Your task to perform on an android device: Toggle the flashlight Image 0: 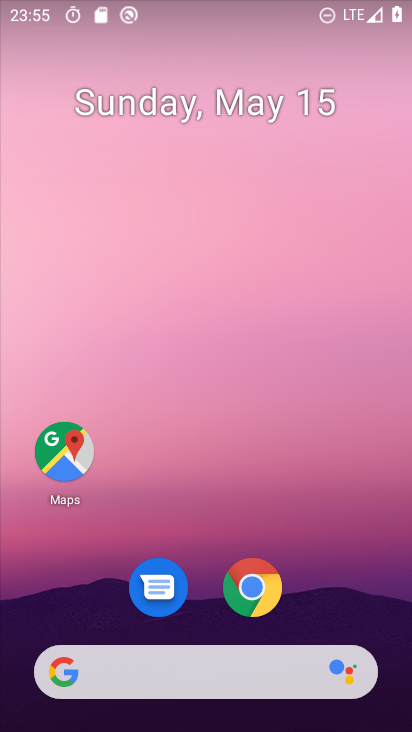
Step 0: drag from (209, 625) to (194, 183)
Your task to perform on an android device: Toggle the flashlight Image 1: 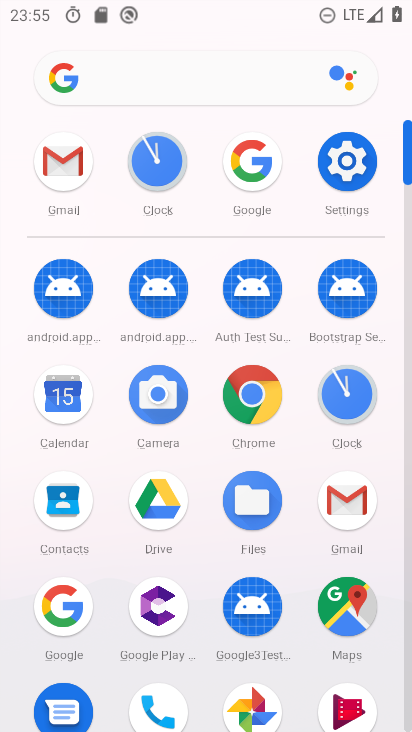
Step 1: click (342, 157)
Your task to perform on an android device: Toggle the flashlight Image 2: 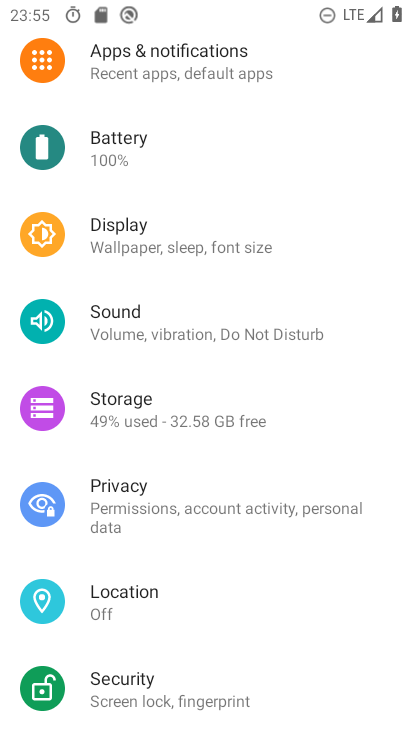
Step 2: click (201, 413)
Your task to perform on an android device: Toggle the flashlight Image 3: 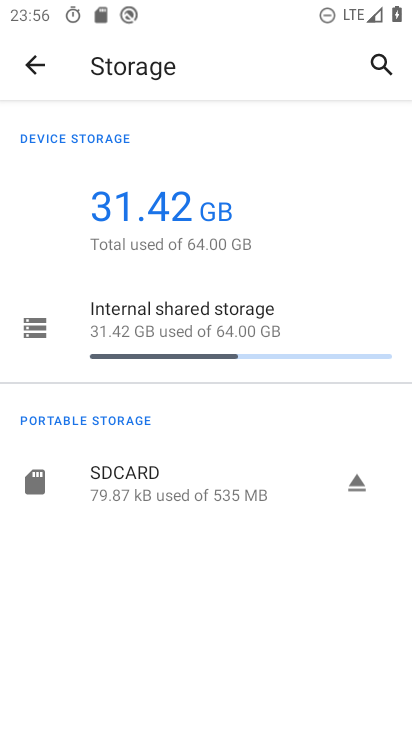
Step 3: task complete